Your task to perform on an android device: all mails in gmail Image 0: 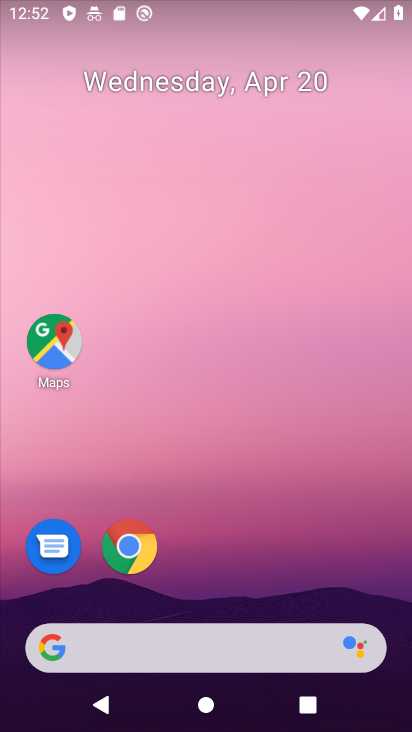
Step 0: click (311, 53)
Your task to perform on an android device: all mails in gmail Image 1: 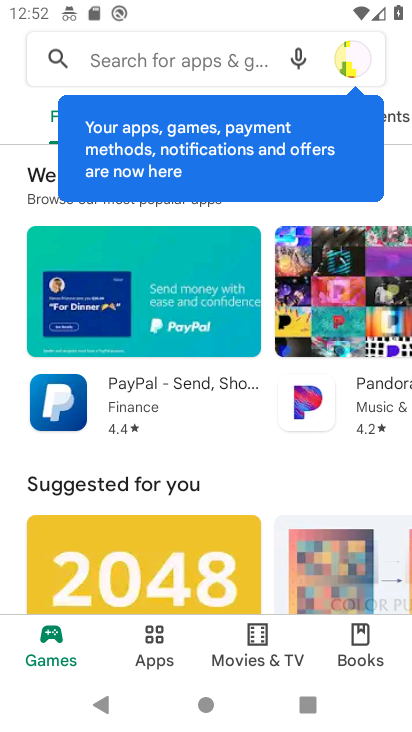
Step 1: press home button
Your task to perform on an android device: all mails in gmail Image 2: 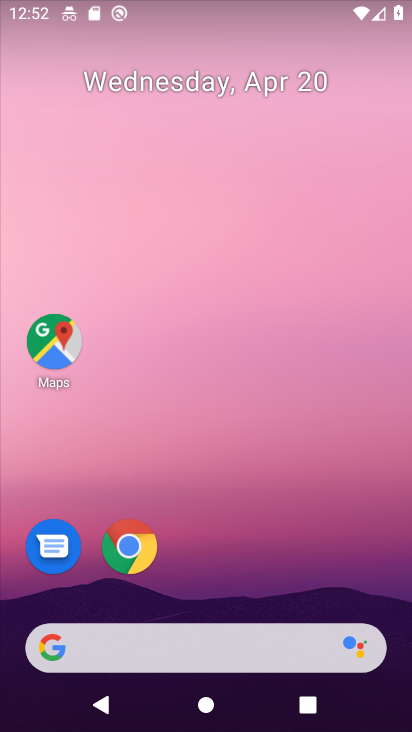
Step 2: drag from (248, 702) to (271, 43)
Your task to perform on an android device: all mails in gmail Image 3: 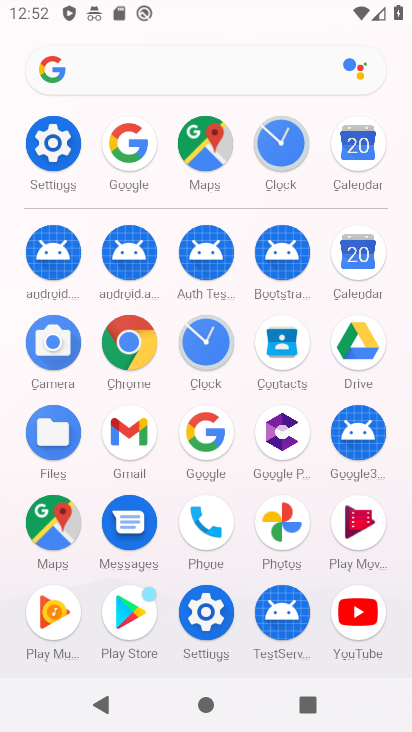
Step 3: click (146, 436)
Your task to perform on an android device: all mails in gmail Image 4: 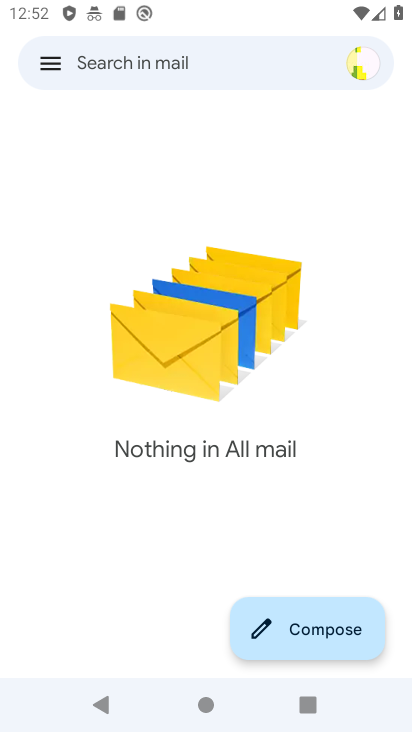
Step 4: click (43, 66)
Your task to perform on an android device: all mails in gmail Image 5: 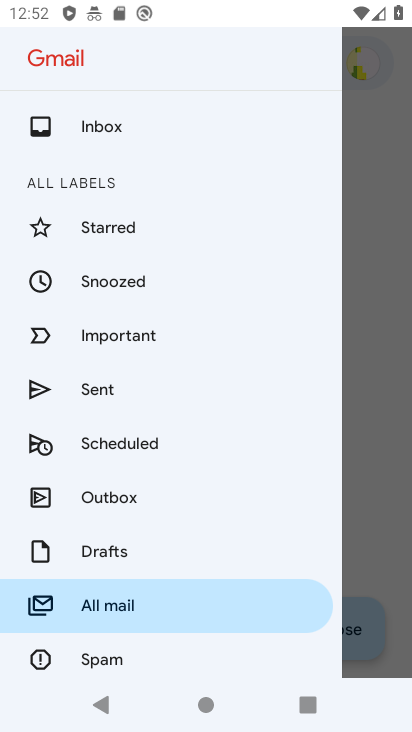
Step 5: task complete